Your task to perform on an android device: Open Amazon Image 0: 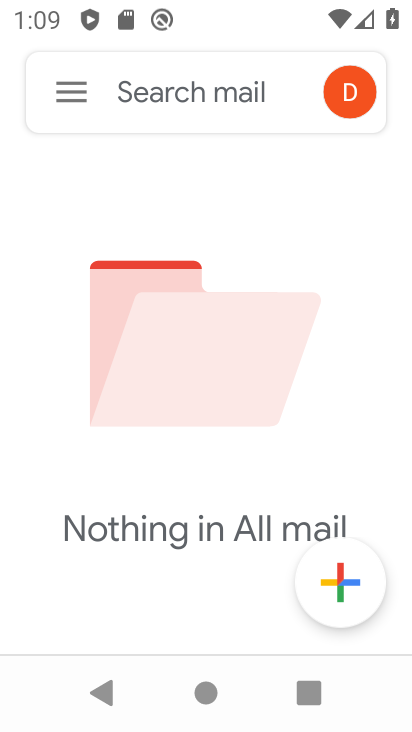
Step 0: press home button
Your task to perform on an android device: Open Amazon Image 1: 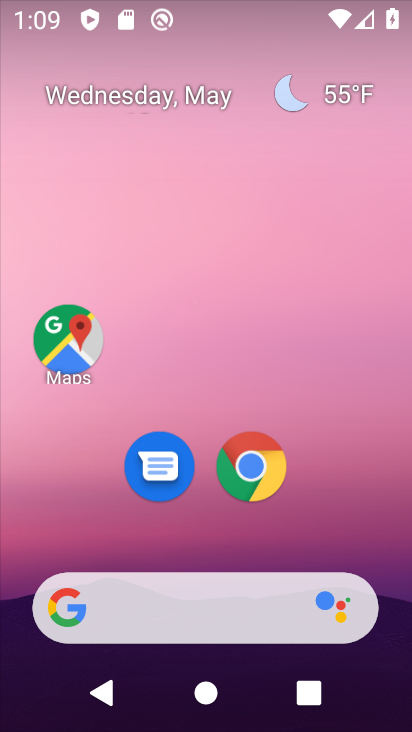
Step 1: click (263, 471)
Your task to perform on an android device: Open Amazon Image 2: 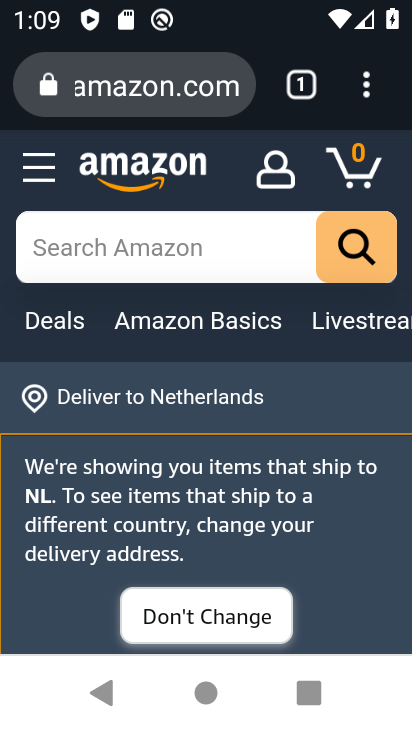
Step 2: task complete